Your task to perform on an android device: Check the news Image 0: 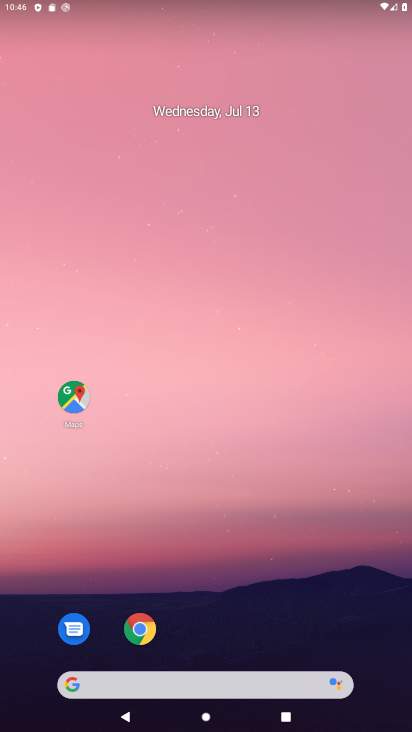
Step 0: drag from (14, 258) to (407, 330)
Your task to perform on an android device: Check the news Image 1: 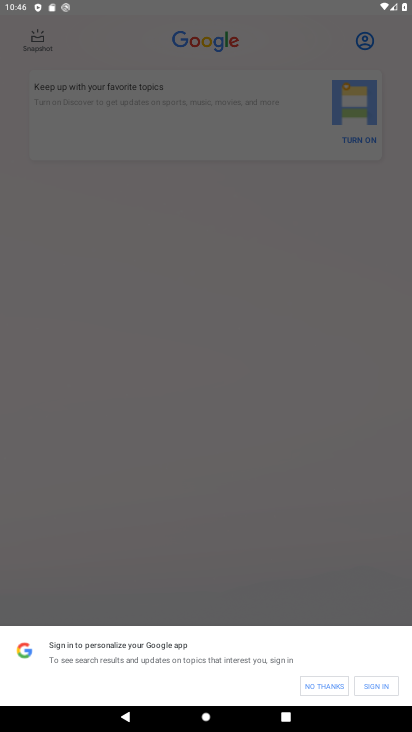
Step 1: press home button
Your task to perform on an android device: Check the news Image 2: 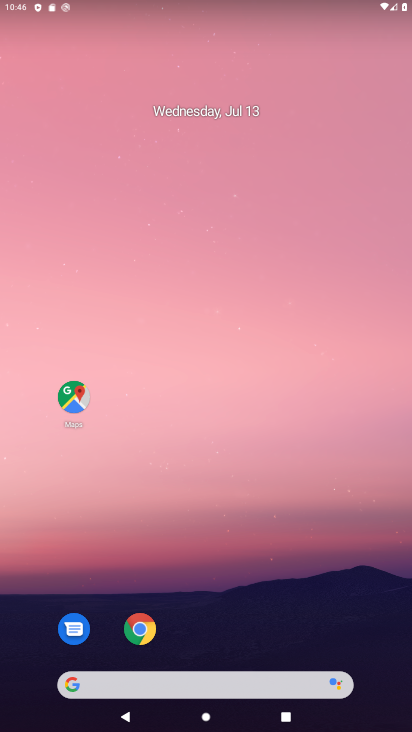
Step 2: drag from (235, 718) to (237, 129)
Your task to perform on an android device: Check the news Image 3: 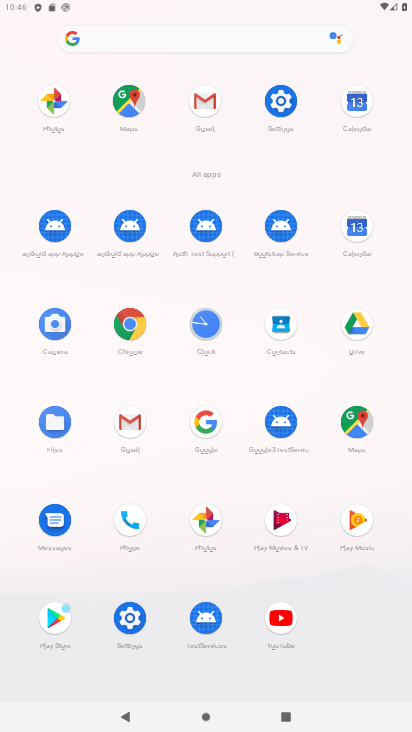
Step 3: click (210, 420)
Your task to perform on an android device: Check the news Image 4: 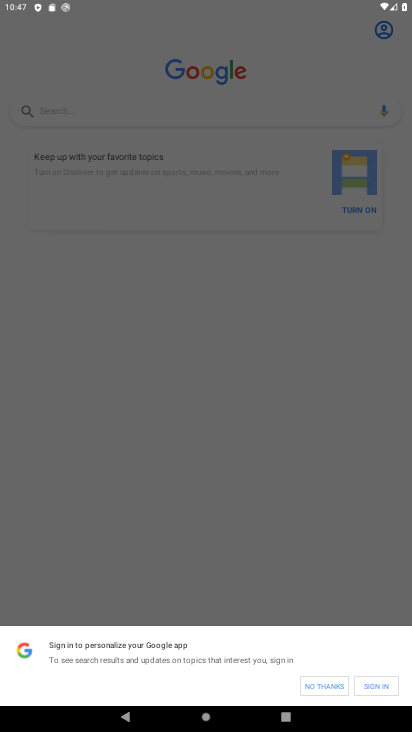
Step 4: task complete